Your task to perform on an android device: find snoozed emails in the gmail app Image 0: 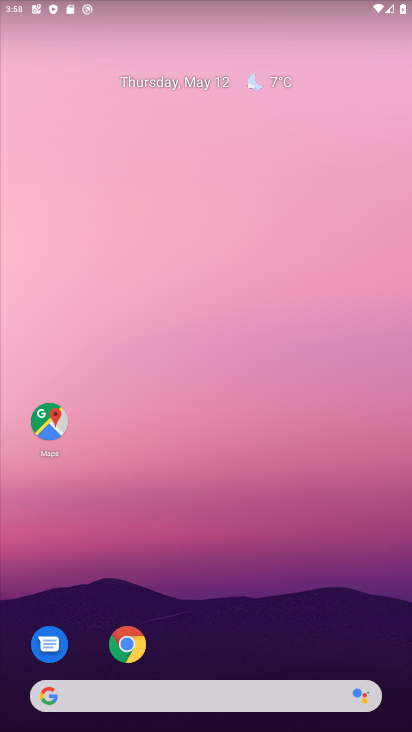
Step 0: drag from (207, 654) to (237, 97)
Your task to perform on an android device: find snoozed emails in the gmail app Image 1: 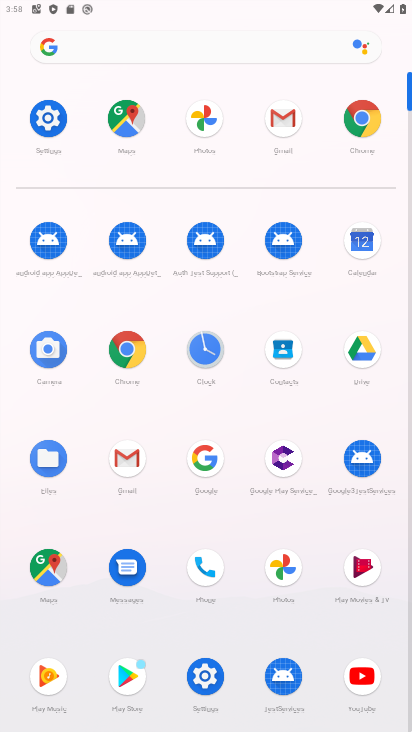
Step 1: click (126, 452)
Your task to perform on an android device: find snoozed emails in the gmail app Image 2: 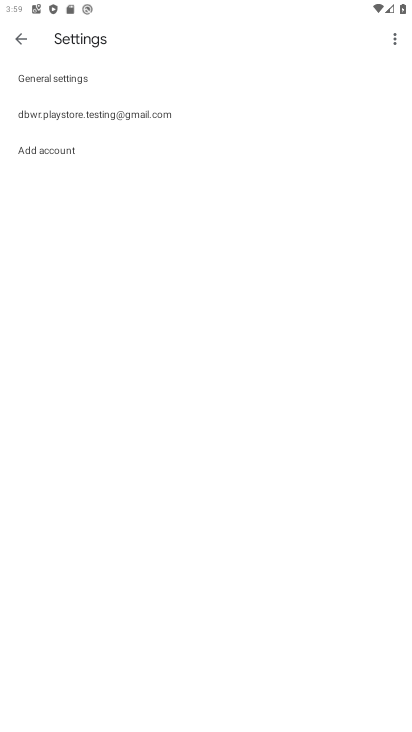
Step 2: press home button
Your task to perform on an android device: find snoozed emails in the gmail app Image 3: 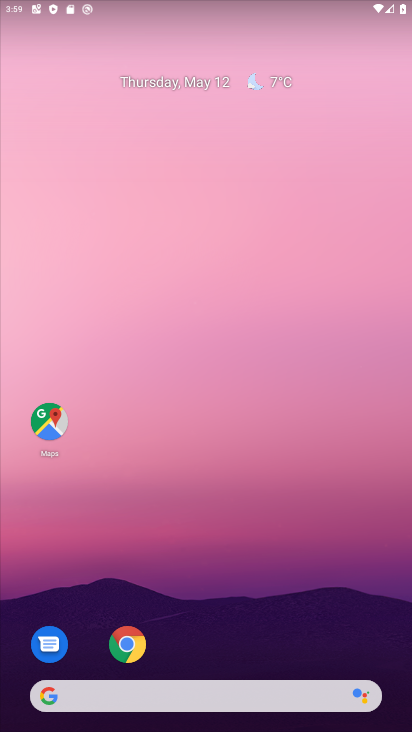
Step 3: drag from (215, 650) to (254, 143)
Your task to perform on an android device: find snoozed emails in the gmail app Image 4: 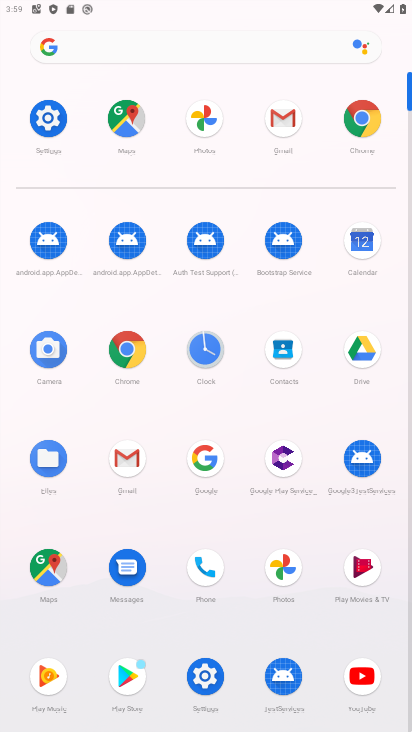
Step 4: click (125, 454)
Your task to perform on an android device: find snoozed emails in the gmail app Image 5: 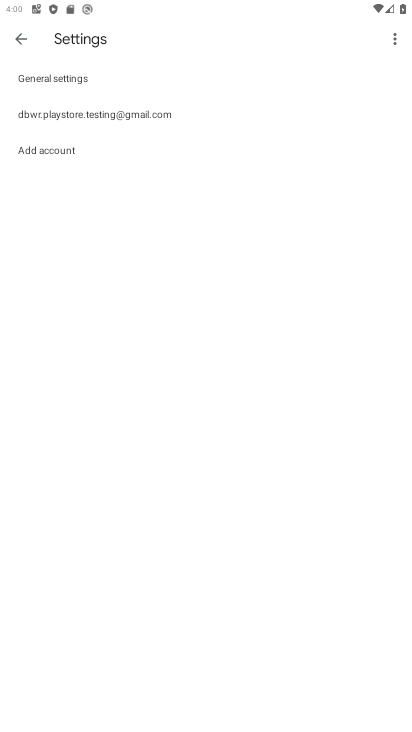
Step 5: click (20, 32)
Your task to perform on an android device: find snoozed emails in the gmail app Image 6: 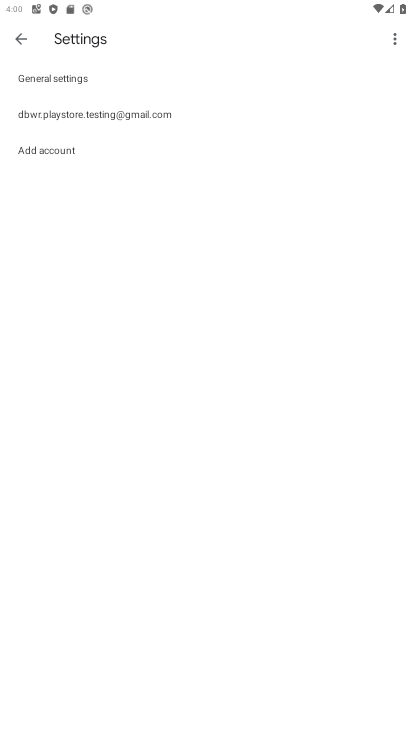
Step 6: click (21, 32)
Your task to perform on an android device: find snoozed emails in the gmail app Image 7: 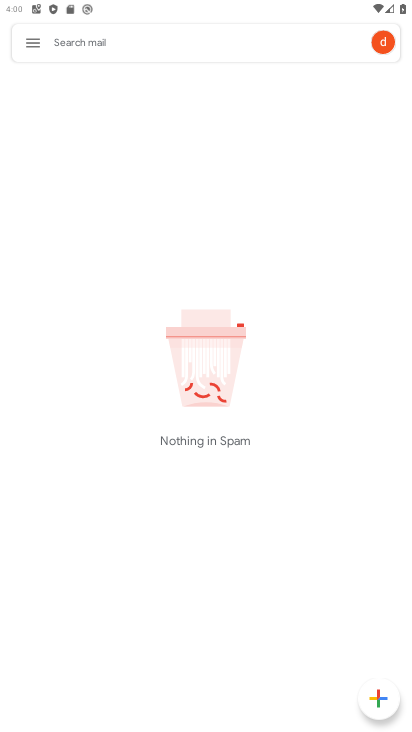
Step 7: click (32, 42)
Your task to perform on an android device: find snoozed emails in the gmail app Image 8: 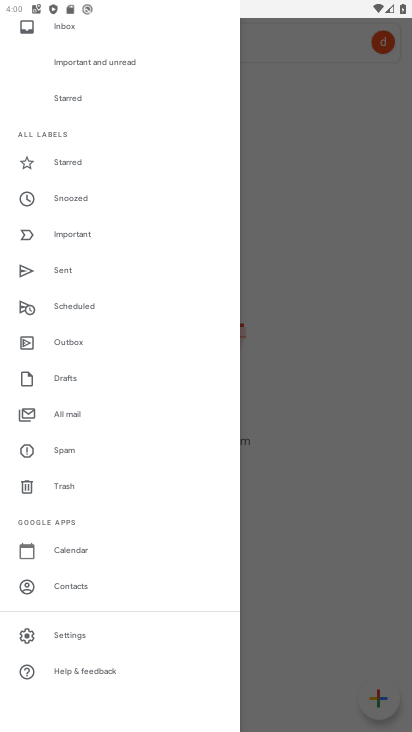
Step 8: click (97, 194)
Your task to perform on an android device: find snoozed emails in the gmail app Image 9: 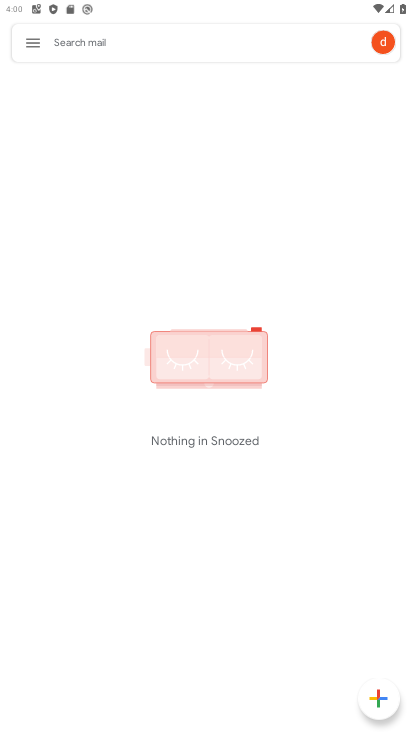
Step 9: task complete